Your task to perform on an android device: turn off improve location accuracy Image 0: 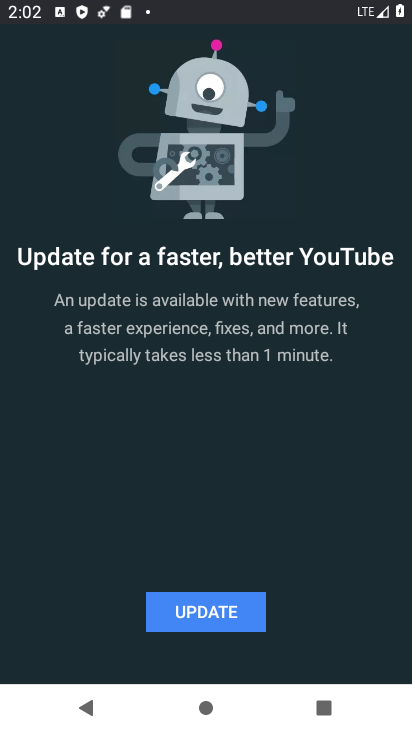
Step 0: press home button
Your task to perform on an android device: turn off improve location accuracy Image 1: 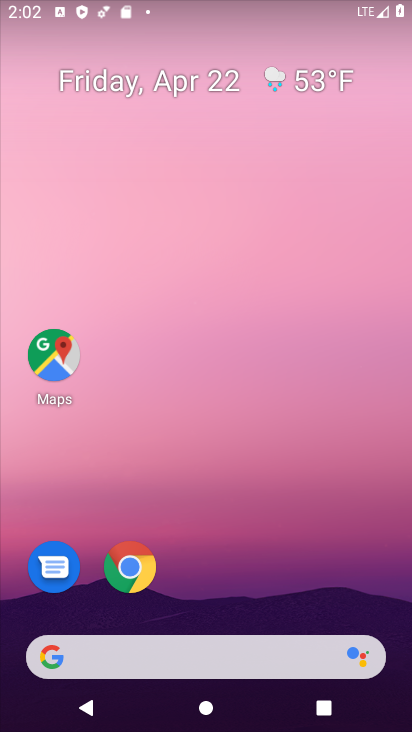
Step 1: drag from (362, 597) to (232, 118)
Your task to perform on an android device: turn off improve location accuracy Image 2: 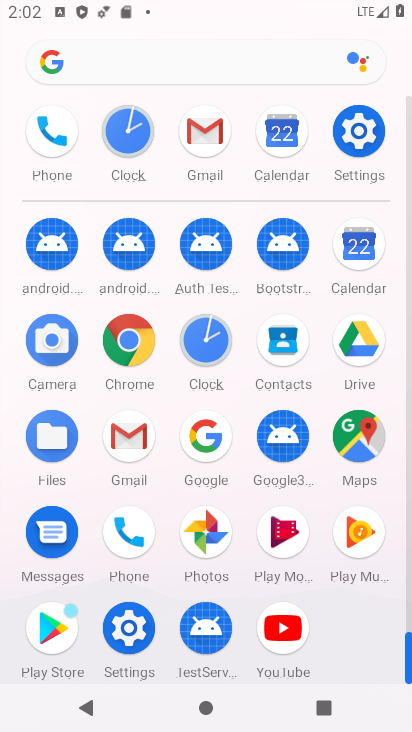
Step 2: click (124, 629)
Your task to perform on an android device: turn off improve location accuracy Image 3: 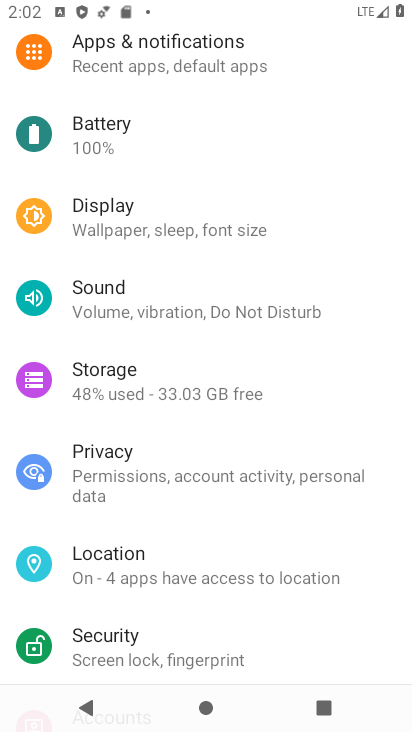
Step 3: drag from (228, 603) to (298, 292)
Your task to perform on an android device: turn off improve location accuracy Image 4: 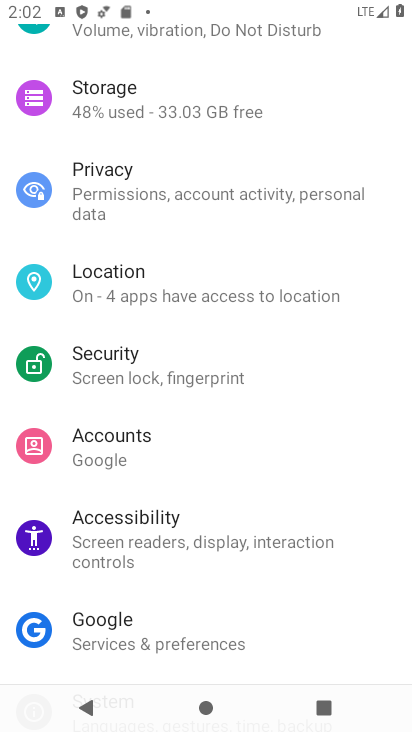
Step 4: click (127, 284)
Your task to perform on an android device: turn off improve location accuracy Image 5: 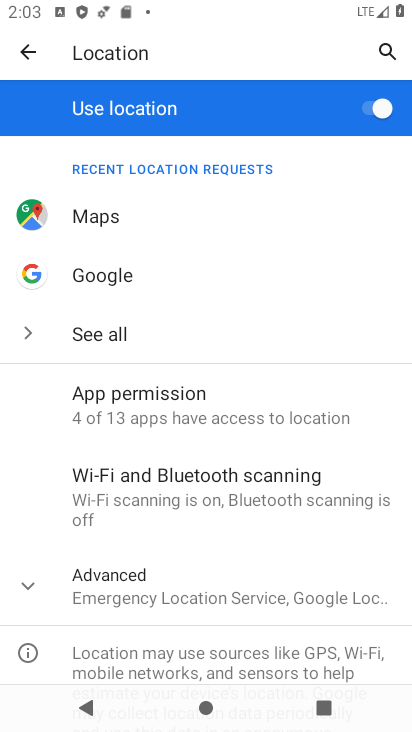
Step 5: drag from (221, 517) to (230, 287)
Your task to perform on an android device: turn off improve location accuracy Image 6: 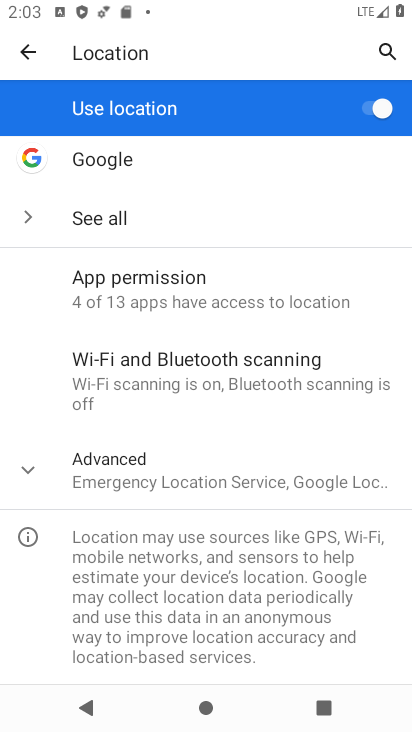
Step 6: click (19, 472)
Your task to perform on an android device: turn off improve location accuracy Image 7: 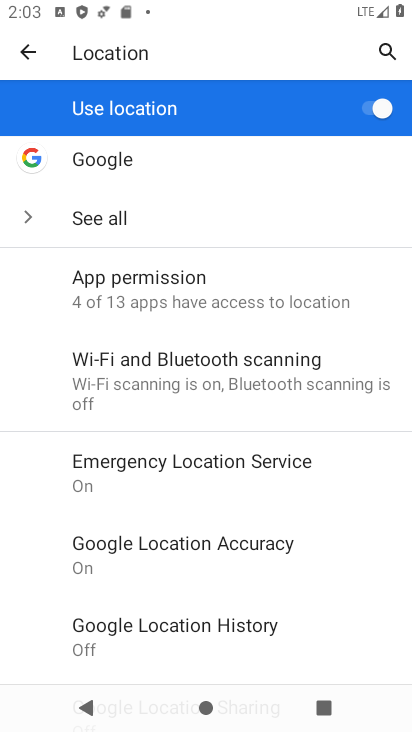
Step 7: drag from (337, 620) to (300, 431)
Your task to perform on an android device: turn off improve location accuracy Image 8: 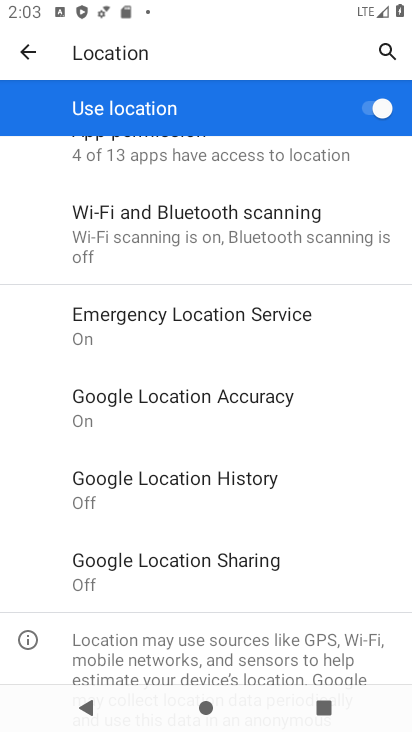
Step 8: click (162, 404)
Your task to perform on an android device: turn off improve location accuracy Image 9: 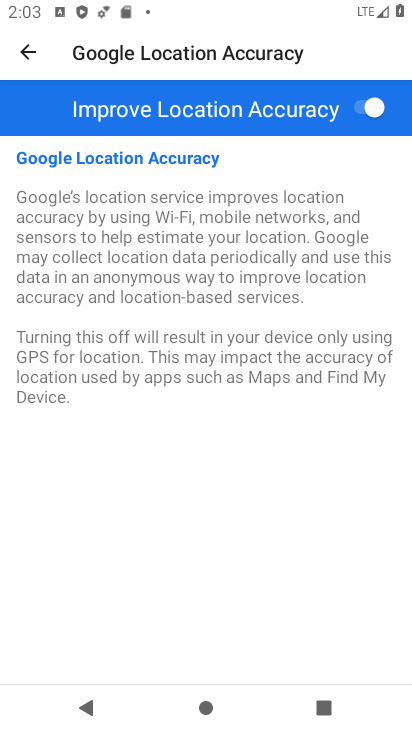
Step 9: click (356, 104)
Your task to perform on an android device: turn off improve location accuracy Image 10: 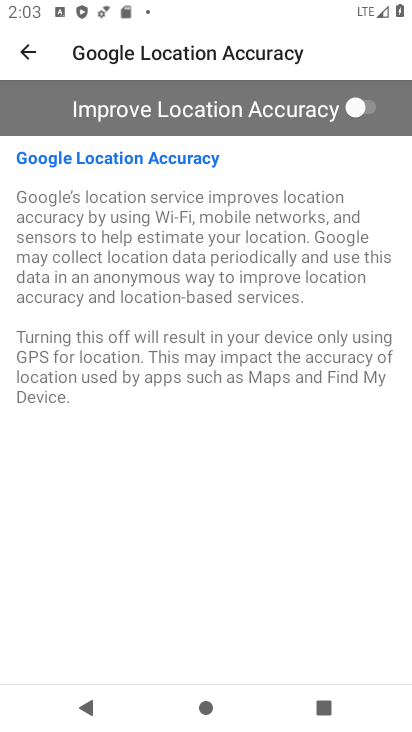
Step 10: task complete